Your task to perform on an android device: Open my contact list Image 0: 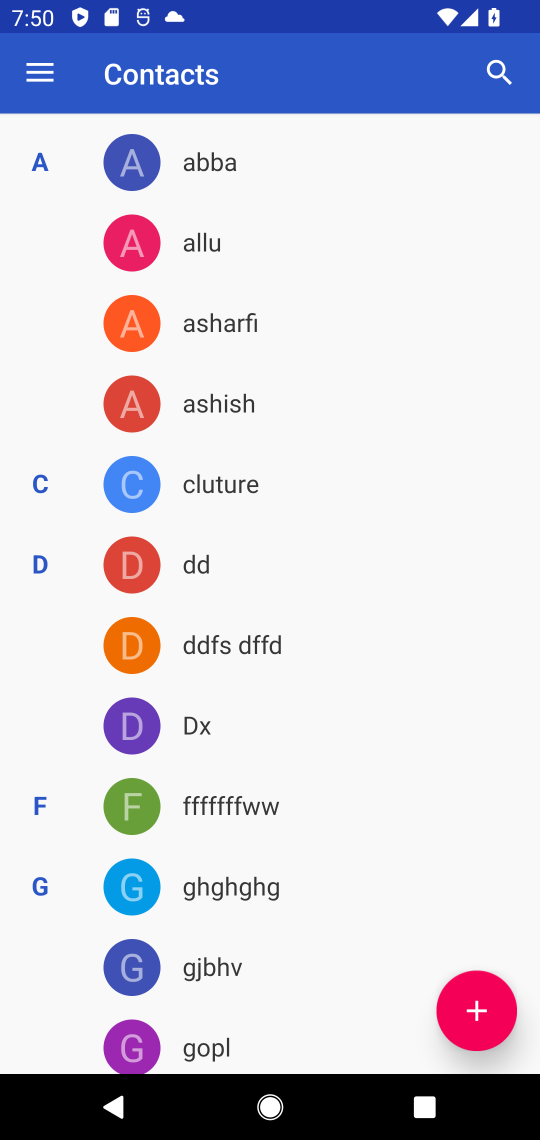
Step 0: press home button
Your task to perform on an android device: Open my contact list Image 1: 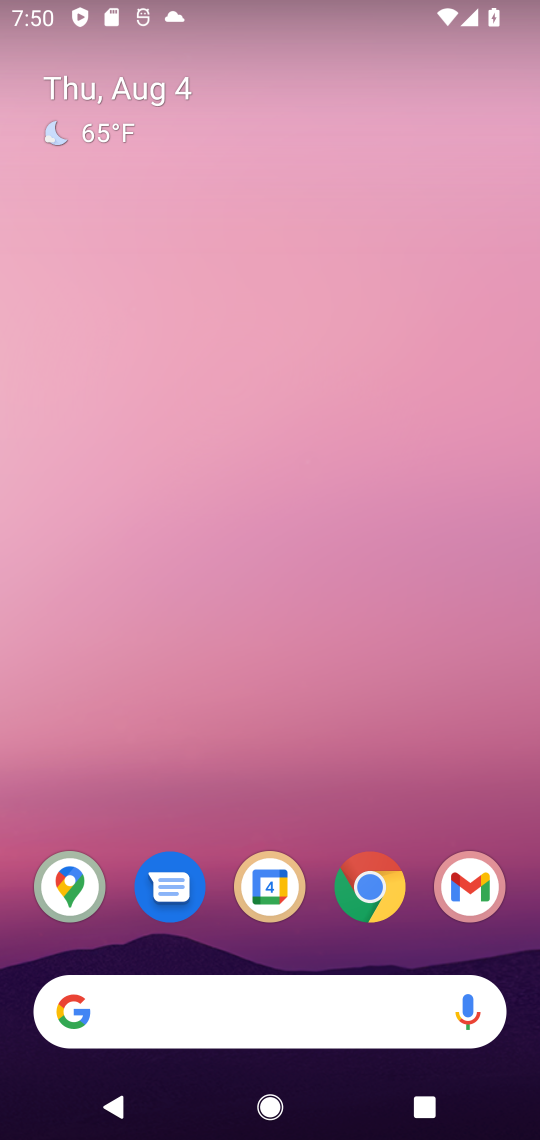
Step 1: drag from (85, 846) to (110, 388)
Your task to perform on an android device: Open my contact list Image 2: 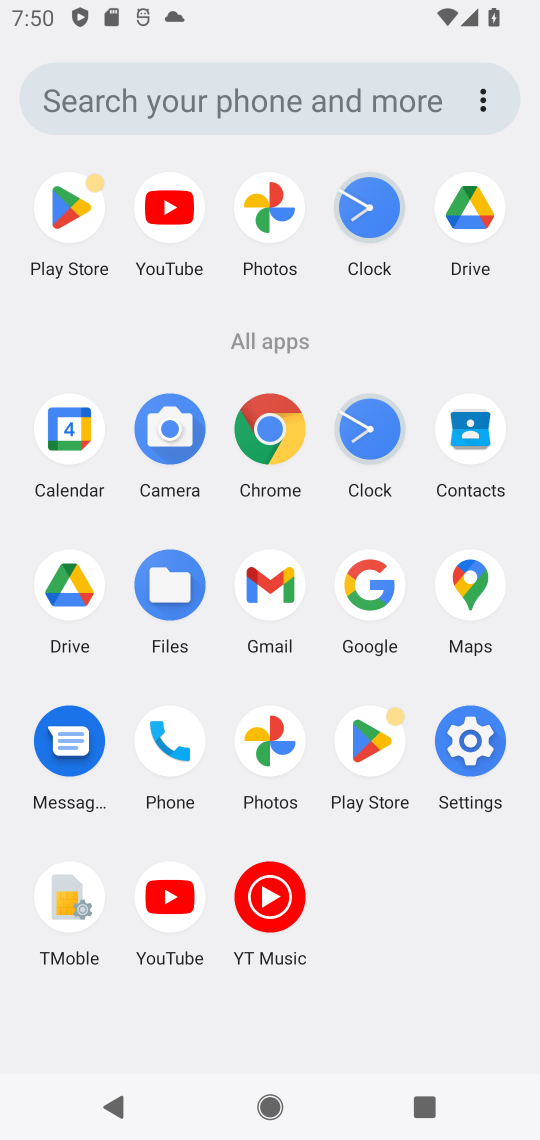
Step 2: click (488, 428)
Your task to perform on an android device: Open my contact list Image 3: 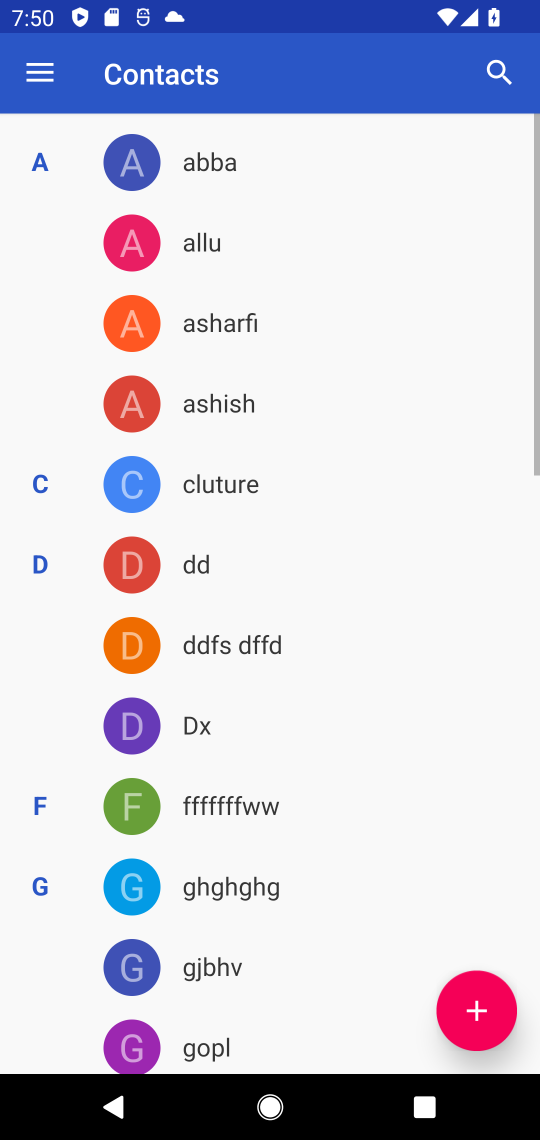
Step 3: task complete